Your task to perform on an android device: set the stopwatch Image 0: 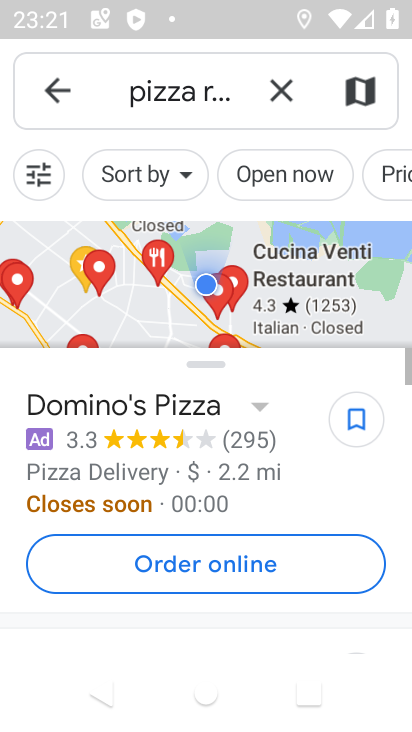
Step 0: press home button
Your task to perform on an android device: set the stopwatch Image 1: 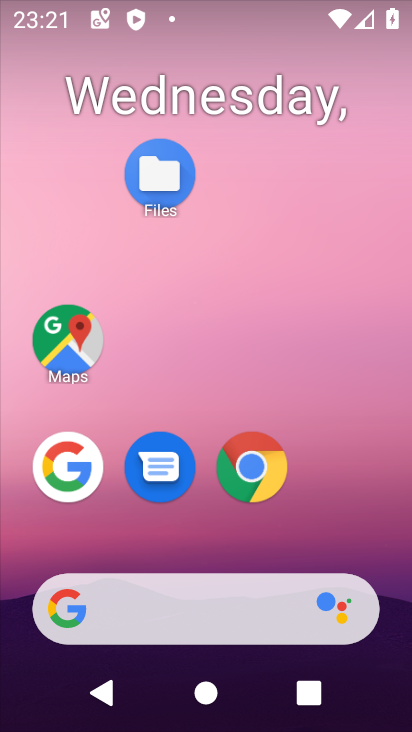
Step 1: drag from (190, 552) to (375, 0)
Your task to perform on an android device: set the stopwatch Image 2: 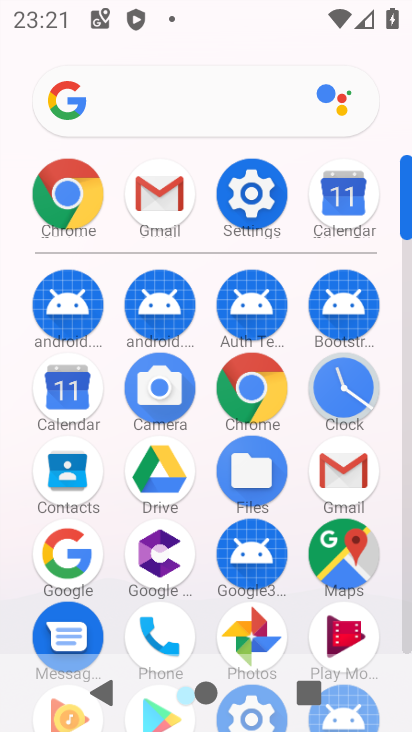
Step 2: click (336, 363)
Your task to perform on an android device: set the stopwatch Image 3: 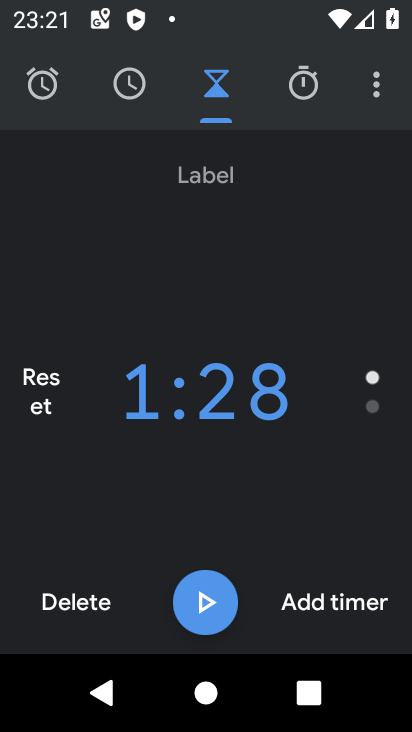
Step 3: task complete